Your task to perform on an android device: Go to display settings Image 0: 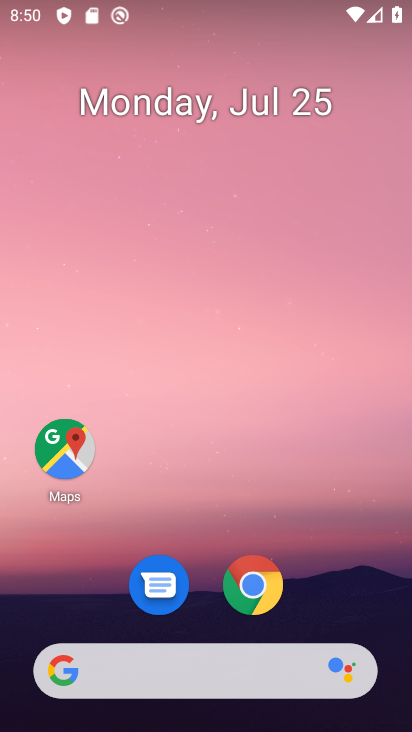
Step 0: drag from (174, 679) to (348, 60)
Your task to perform on an android device: Go to display settings Image 1: 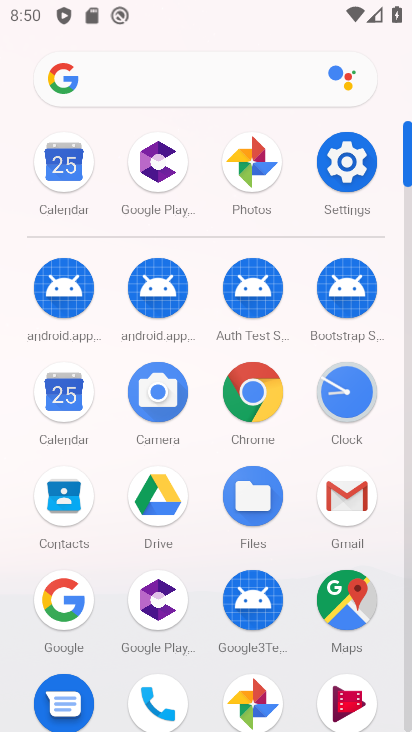
Step 1: click (343, 169)
Your task to perform on an android device: Go to display settings Image 2: 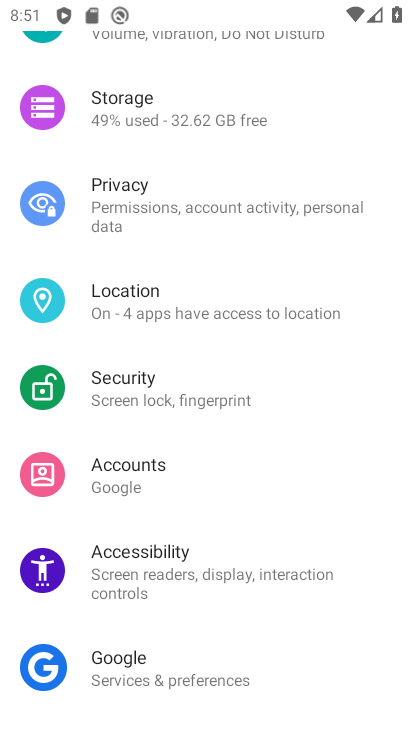
Step 2: drag from (258, 172) to (203, 576)
Your task to perform on an android device: Go to display settings Image 3: 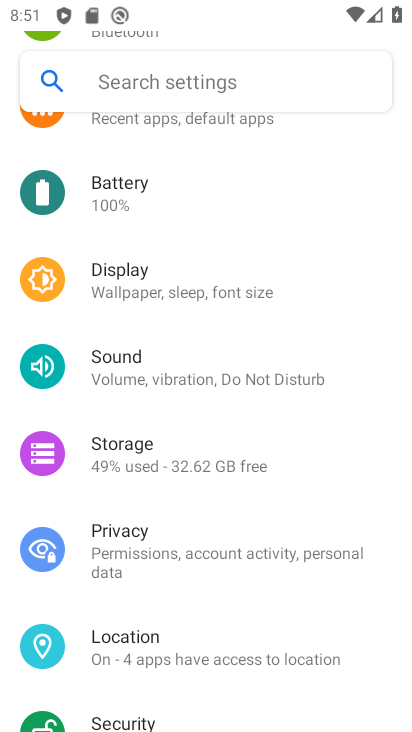
Step 3: click (124, 284)
Your task to perform on an android device: Go to display settings Image 4: 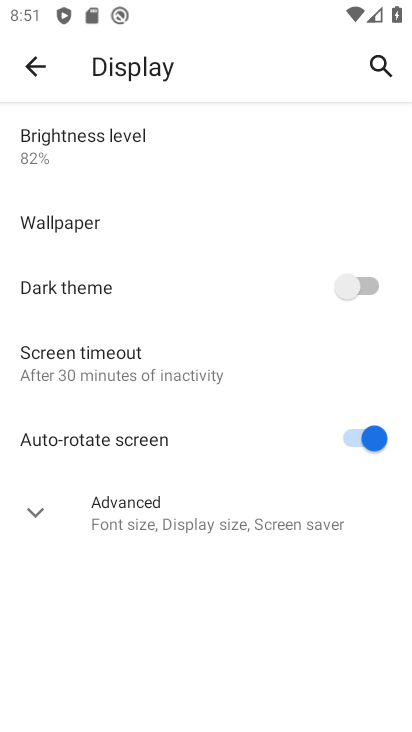
Step 4: task complete